Your task to perform on an android device: Go to ESPN.com Image 0: 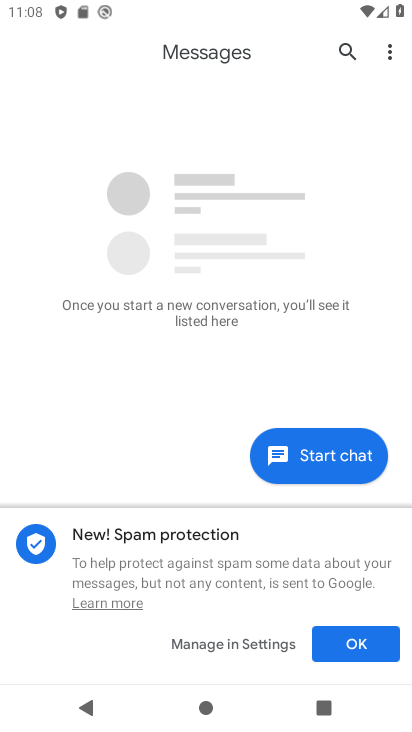
Step 0: press home button
Your task to perform on an android device: Go to ESPN.com Image 1: 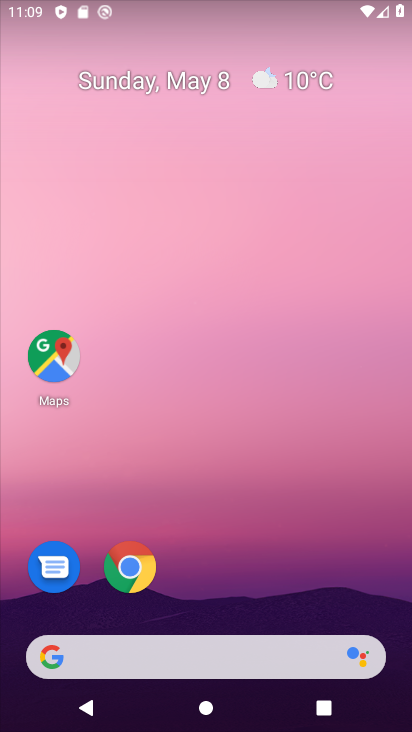
Step 1: drag from (235, 559) to (164, 113)
Your task to perform on an android device: Go to ESPN.com Image 2: 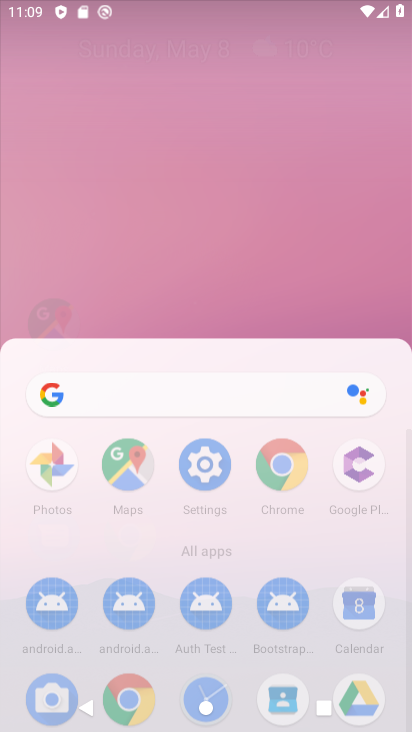
Step 2: click (164, 113)
Your task to perform on an android device: Go to ESPN.com Image 3: 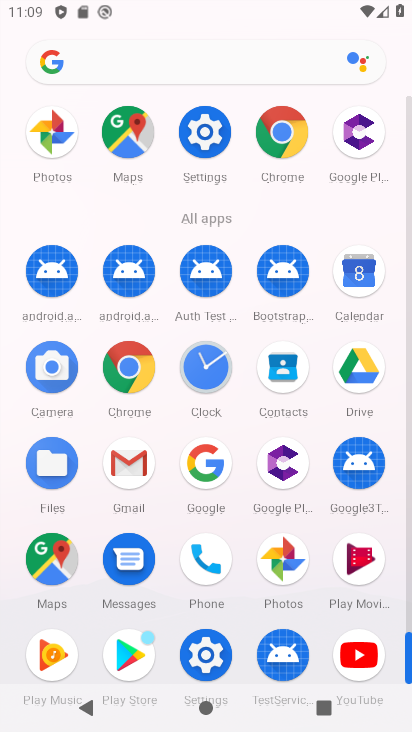
Step 3: click (116, 392)
Your task to perform on an android device: Go to ESPN.com Image 4: 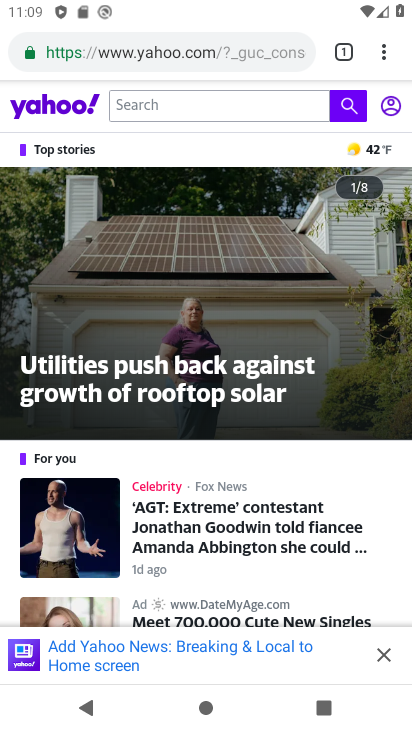
Step 4: click (220, 53)
Your task to perform on an android device: Go to ESPN.com Image 5: 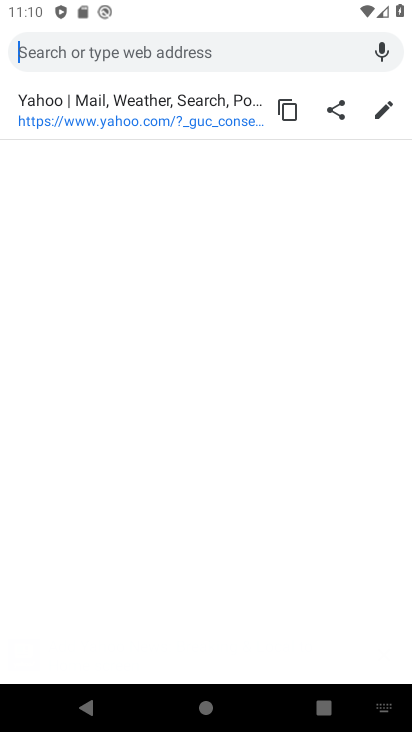
Step 5: type "espn.com"
Your task to perform on an android device: Go to ESPN.com Image 6: 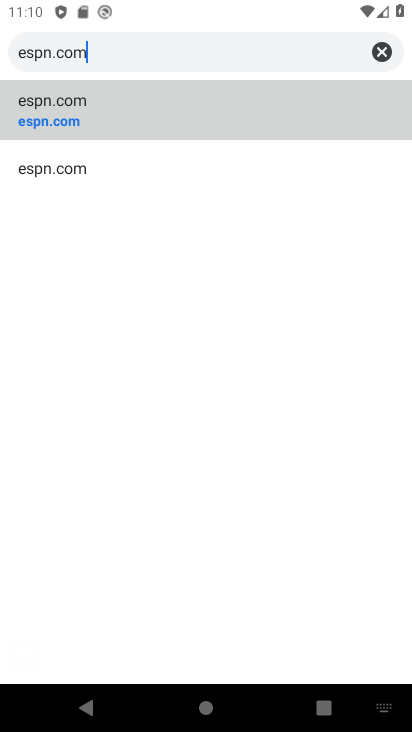
Step 6: click (62, 132)
Your task to perform on an android device: Go to ESPN.com Image 7: 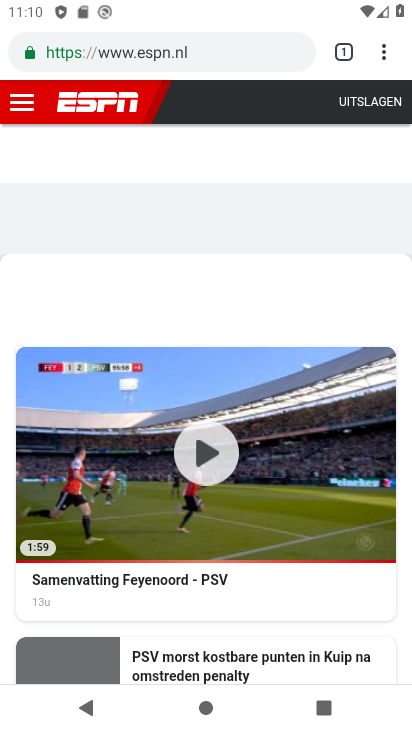
Step 7: task complete